Your task to perform on an android device: Go to sound settings Image 0: 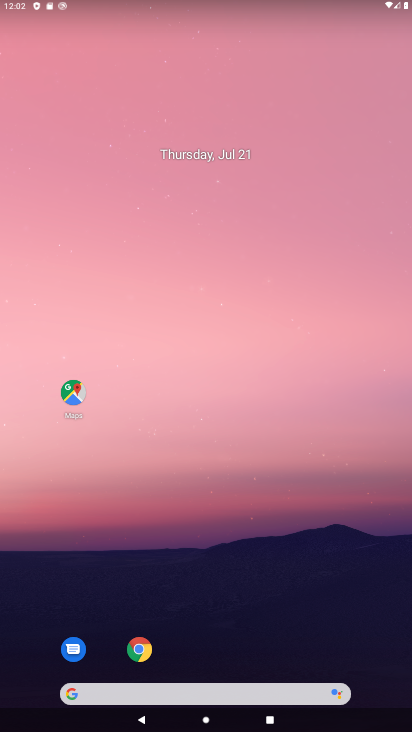
Step 0: drag from (281, 658) to (264, 270)
Your task to perform on an android device: Go to sound settings Image 1: 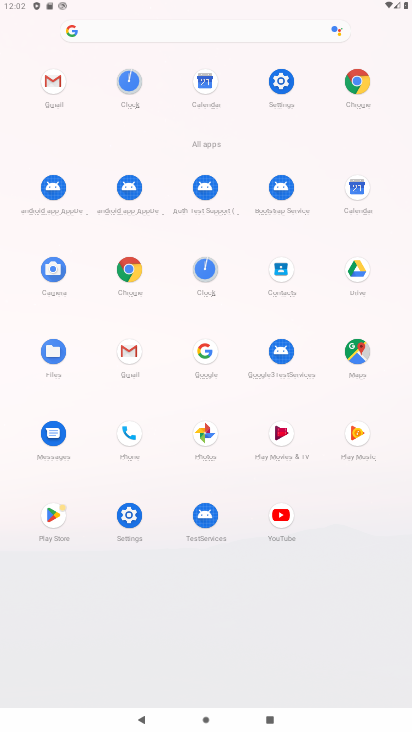
Step 1: click (292, 85)
Your task to perform on an android device: Go to sound settings Image 2: 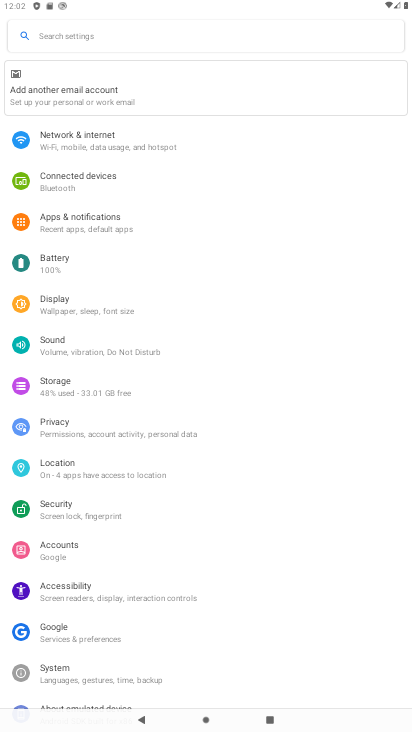
Step 2: click (99, 340)
Your task to perform on an android device: Go to sound settings Image 3: 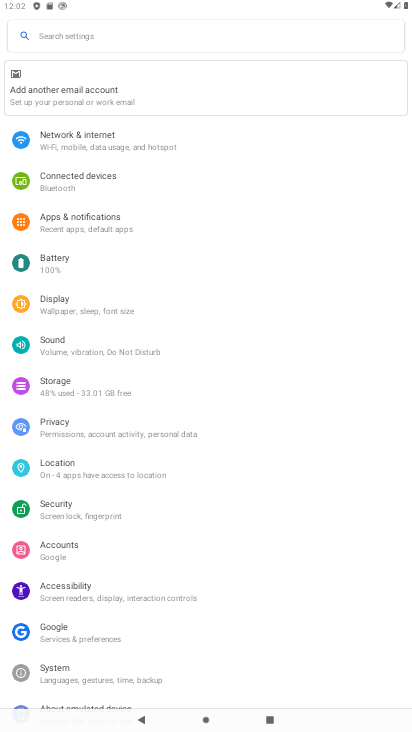
Step 3: task complete